Your task to perform on an android device: turn smart compose on in the gmail app Image 0: 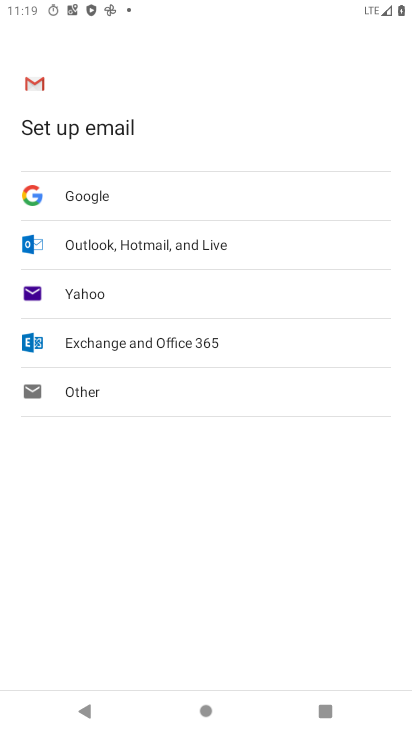
Step 0: press home button
Your task to perform on an android device: turn smart compose on in the gmail app Image 1: 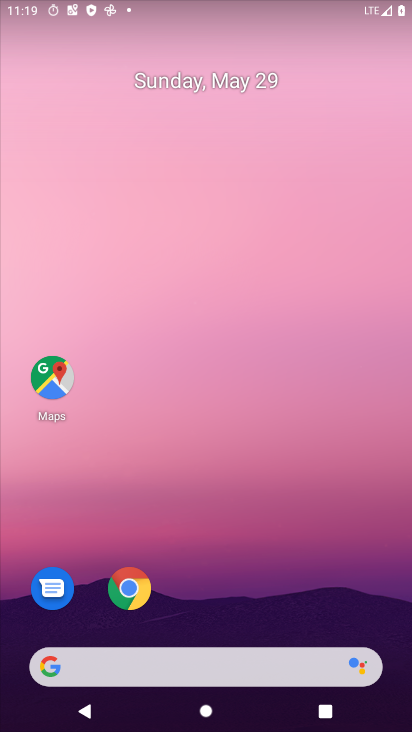
Step 1: drag from (192, 591) to (208, 178)
Your task to perform on an android device: turn smart compose on in the gmail app Image 2: 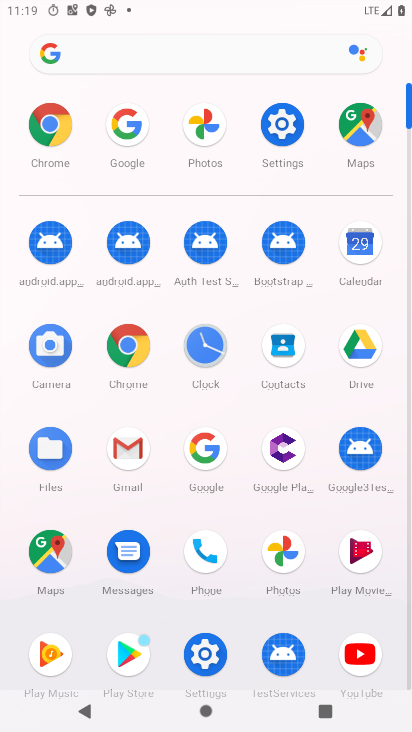
Step 2: click (116, 459)
Your task to perform on an android device: turn smart compose on in the gmail app Image 3: 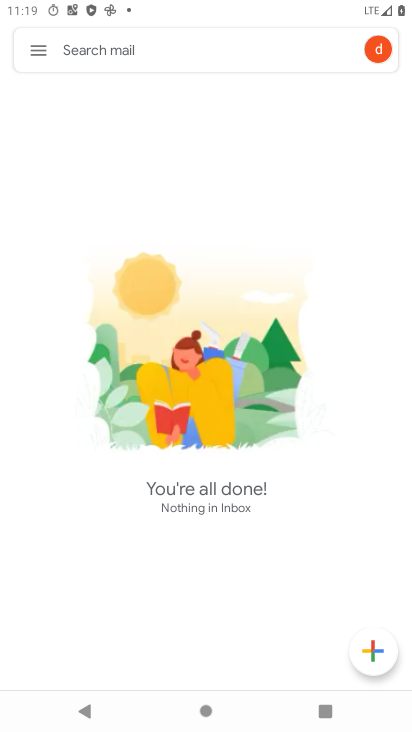
Step 3: click (31, 57)
Your task to perform on an android device: turn smart compose on in the gmail app Image 4: 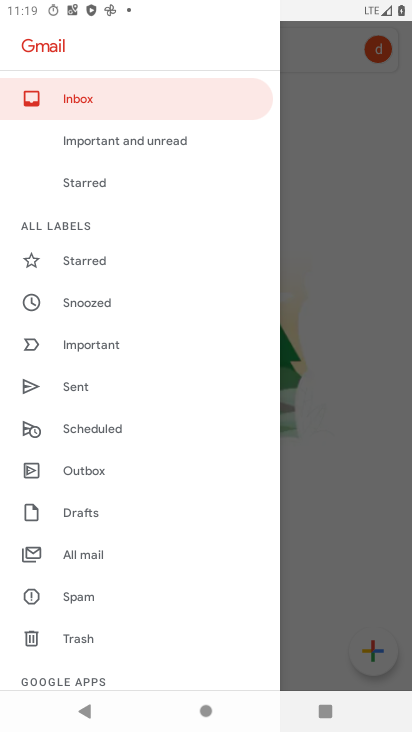
Step 4: drag from (116, 587) to (177, 185)
Your task to perform on an android device: turn smart compose on in the gmail app Image 5: 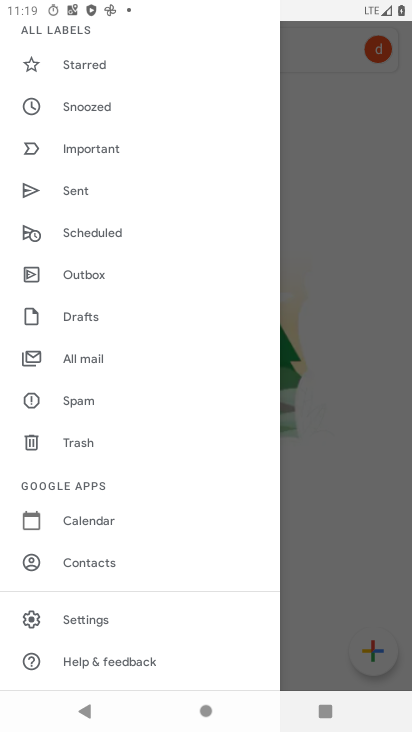
Step 5: click (95, 617)
Your task to perform on an android device: turn smart compose on in the gmail app Image 6: 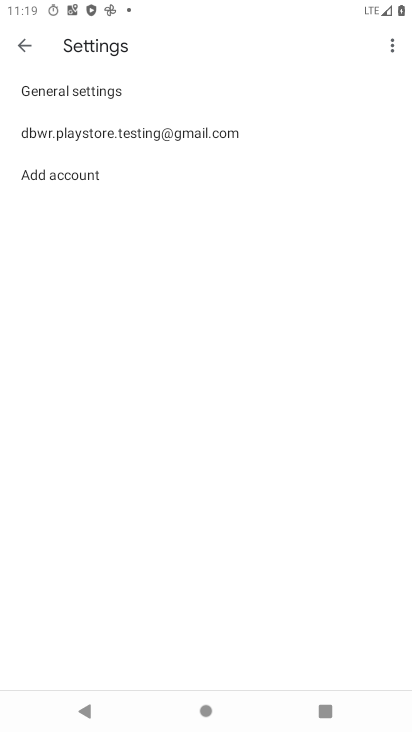
Step 6: click (134, 142)
Your task to perform on an android device: turn smart compose on in the gmail app Image 7: 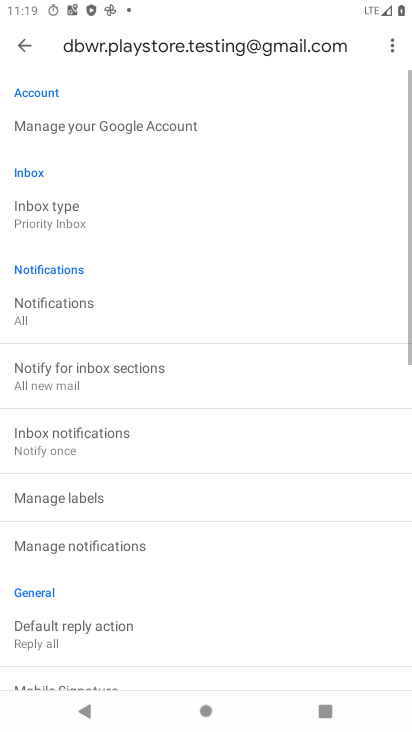
Step 7: task complete